Your task to perform on an android device: toggle javascript in the chrome app Image 0: 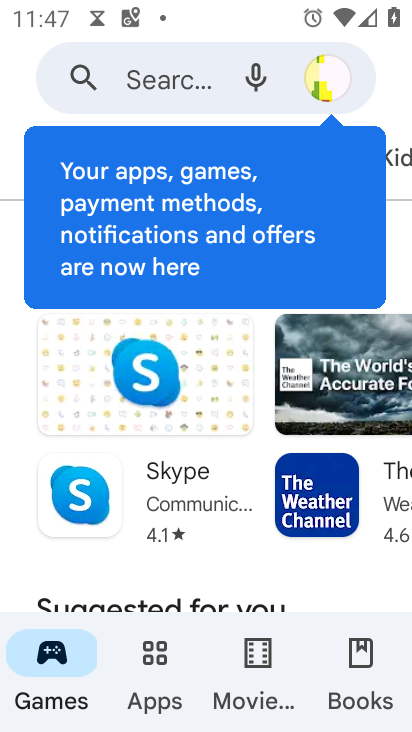
Step 0: press home button
Your task to perform on an android device: toggle javascript in the chrome app Image 1: 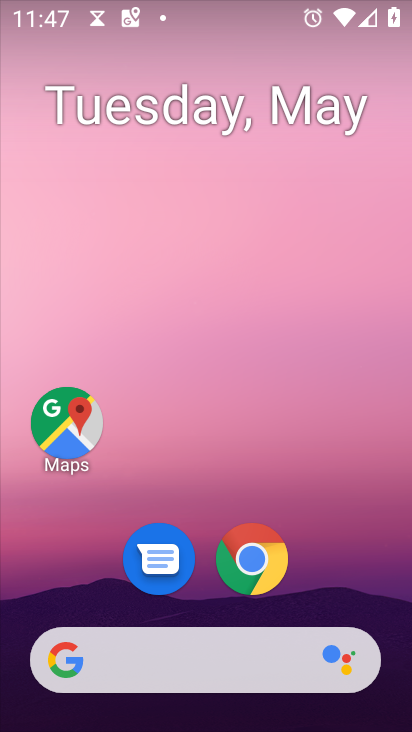
Step 1: click (260, 557)
Your task to perform on an android device: toggle javascript in the chrome app Image 2: 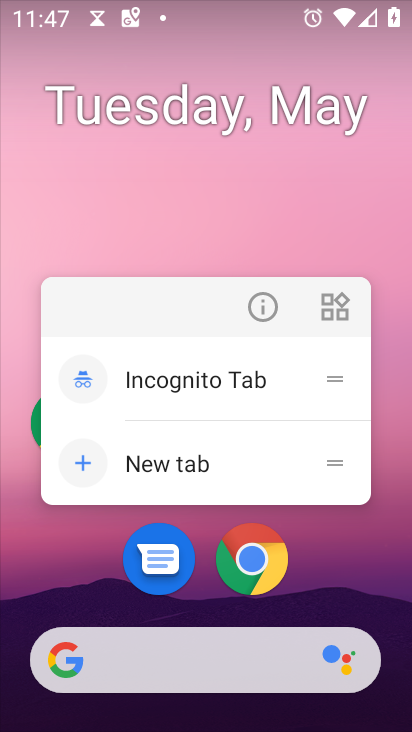
Step 2: click (259, 557)
Your task to perform on an android device: toggle javascript in the chrome app Image 3: 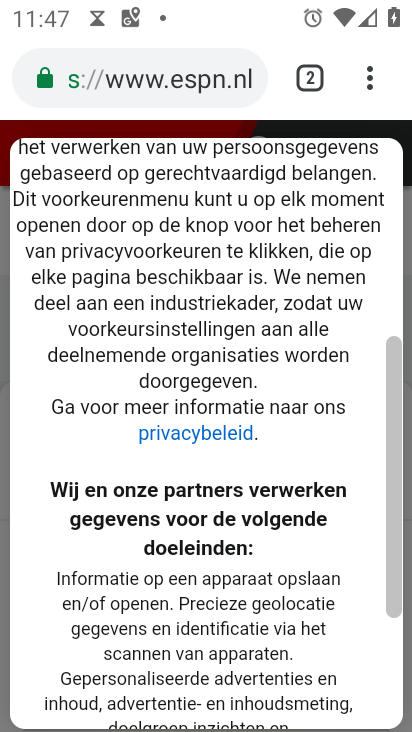
Step 3: drag from (368, 81) to (91, 615)
Your task to perform on an android device: toggle javascript in the chrome app Image 4: 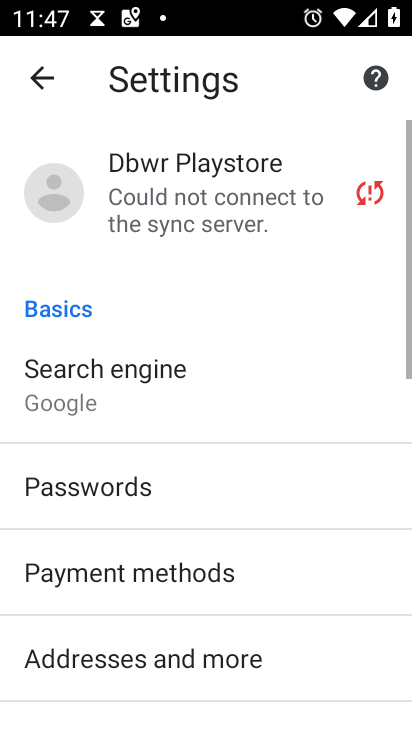
Step 4: drag from (121, 652) to (218, 190)
Your task to perform on an android device: toggle javascript in the chrome app Image 5: 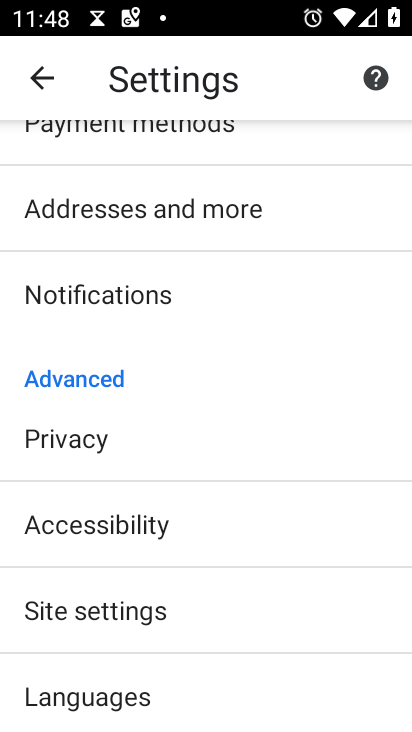
Step 5: click (170, 615)
Your task to perform on an android device: toggle javascript in the chrome app Image 6: 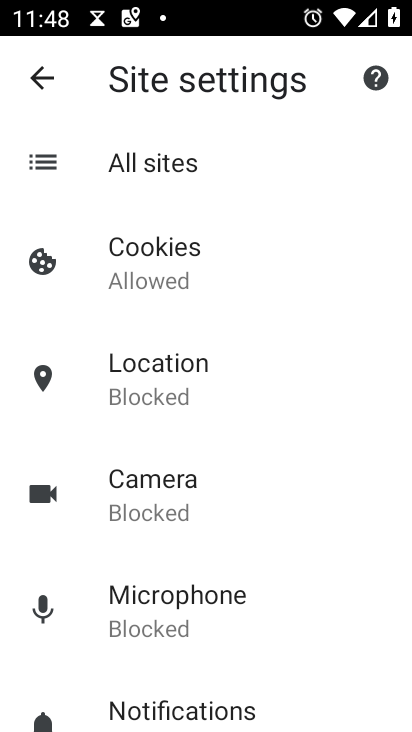
Step 6: drag from (232, 607) to (280, 197)
Your task to perform on an android device: toggle javascript in the chrome app Image 7: 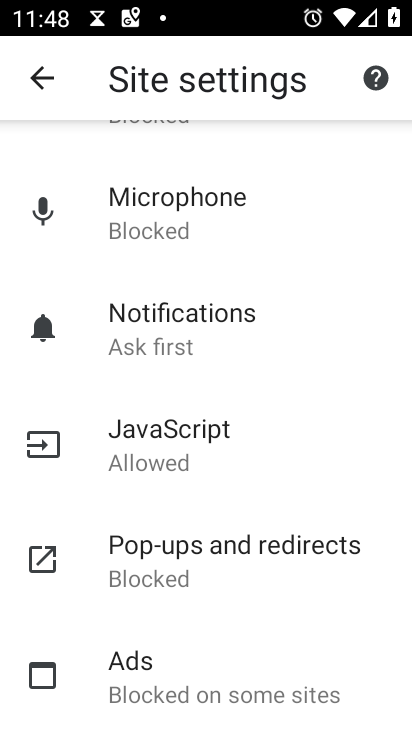
Step 7: click (194, 456)
Your task to perform on an android device: toggle javascript in the chrome app Image 8: 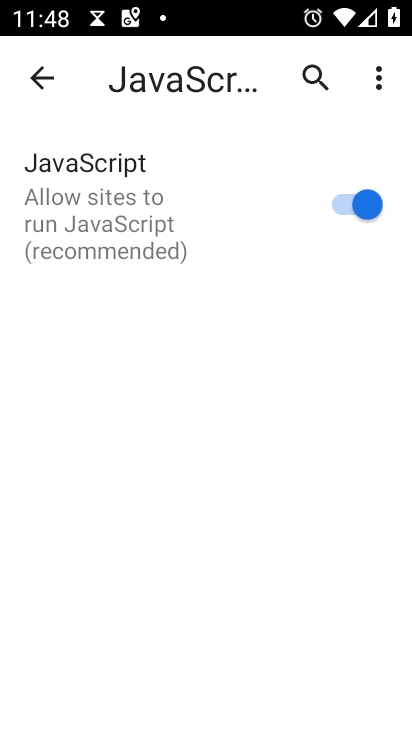
Step 8: click (353, 215)
Your task to perform on an android device: toggle javascript in the chrome app Image 9: 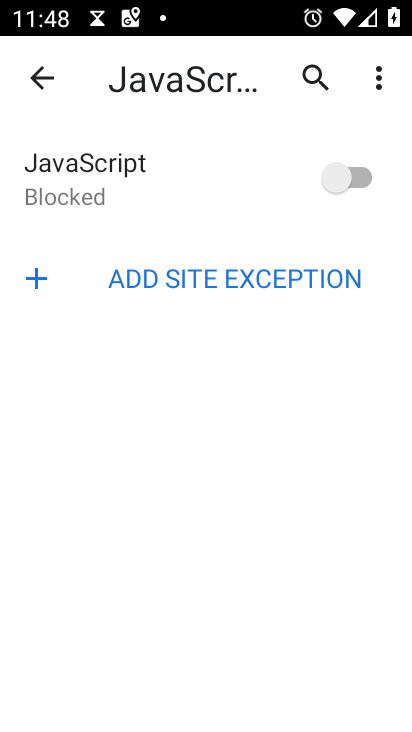
Step 9: task complete